Your task to perform on an android device: open a new tab in the chrome app Image 0: 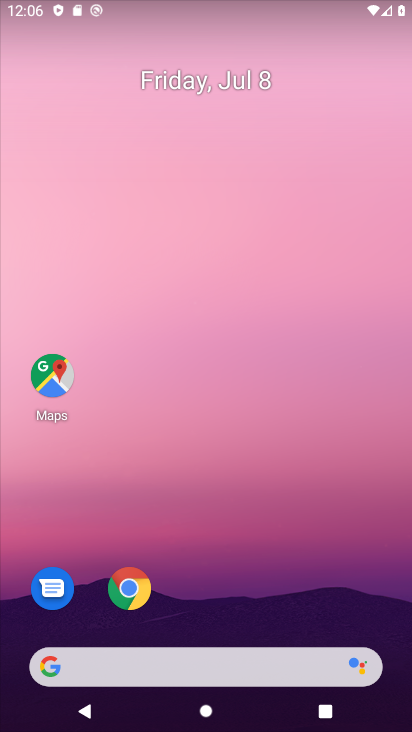
Step 0: click (122, 593)
Your task to perform on an android device: open a new tab in the chrome app Image 1: 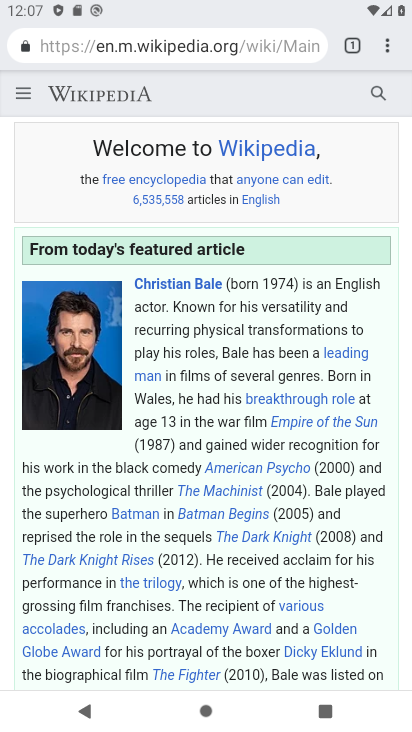
Step 1: click (356, 47)
Your task to perform on an android device: open a new tab in the chrome app Image 2: 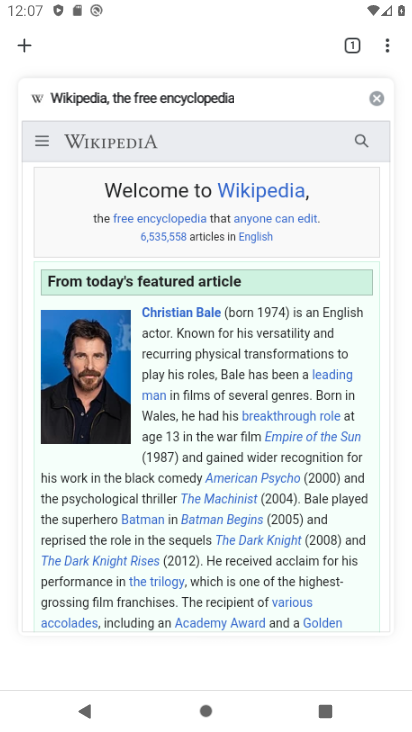
Step 2: click (22, 46)
Your task to perform on an android device: open a new tab in the chrome app Image 3: 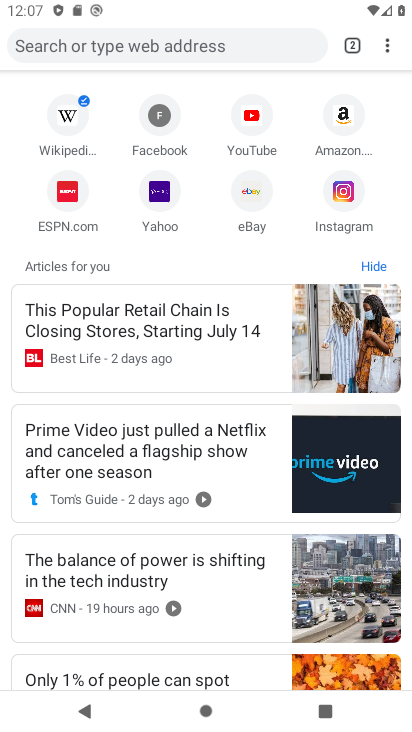
Step 3: task complete